Your task to perform on an android device: Go to Reddit.com Image 0: 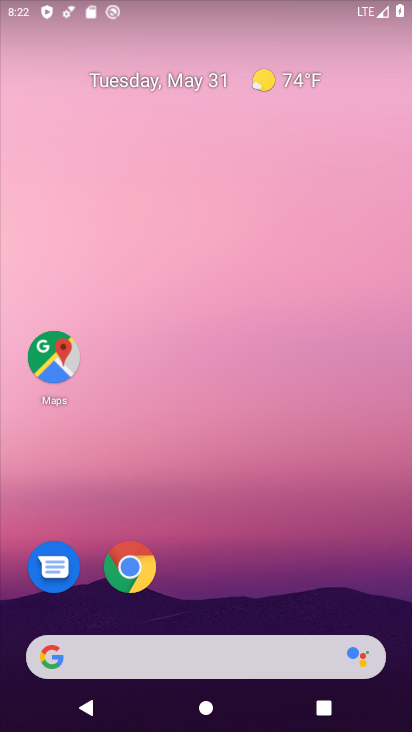
Step 0: drag from (256, 604) to (216, 184)
Your task to perform on an android device: Go to Reddit.com Image 1: 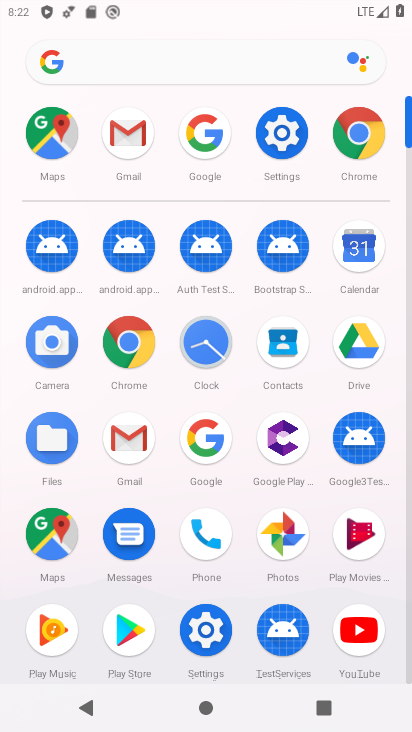
Step 1: click (354, 141)
Your task to perform on an android device: Go to Reddit.com Image 2: 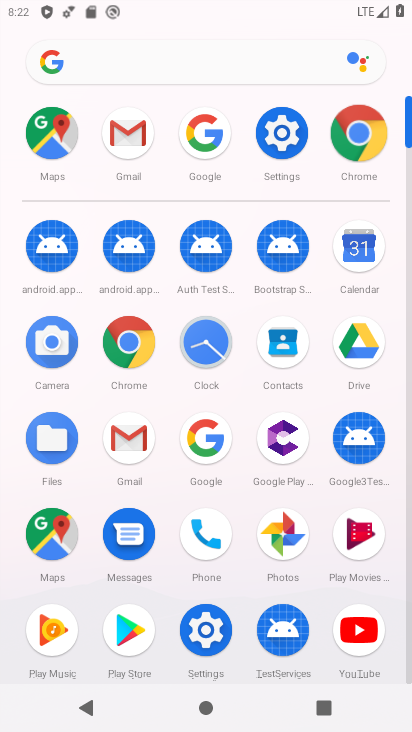
Step 2: click (354, 141)
Your task to perform on an android device: Go to Reddit.com Image 3: 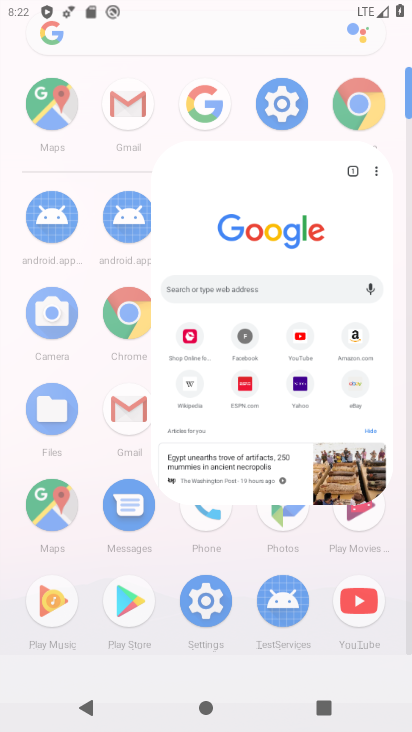
Step 3: click (354, 141)
Your task to perform on an android device: Go to Reddit.com Image 4: 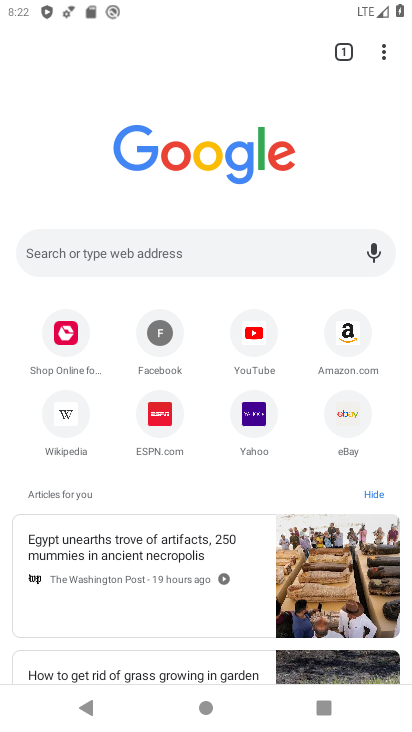
Step 4: click (79, 249)
Your task to perform on an android device: Go to Reddit.com Image 5: 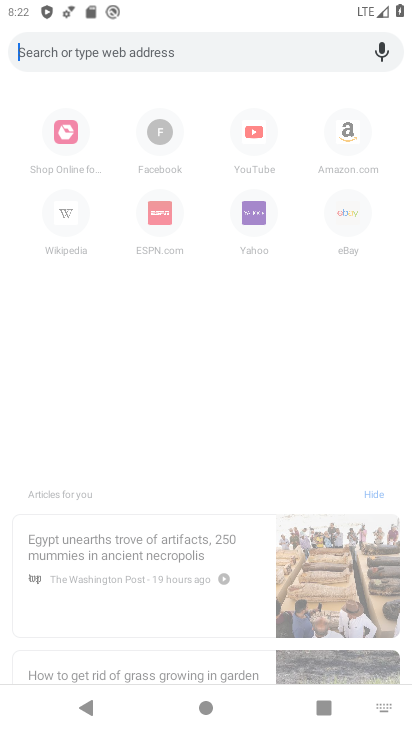
Step 5: click (51, 257)
Your task to perform on an android device: Go to Reddit.com Image 6: 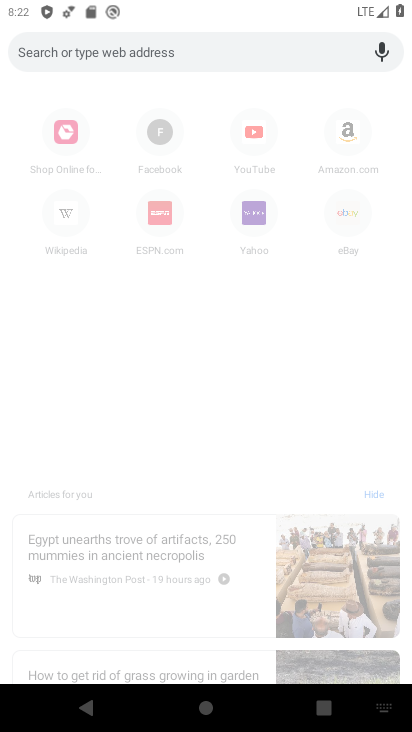
Step 6: click (52, 256)
Your task to perform on an android device: Go to Reddit.com Image 7: 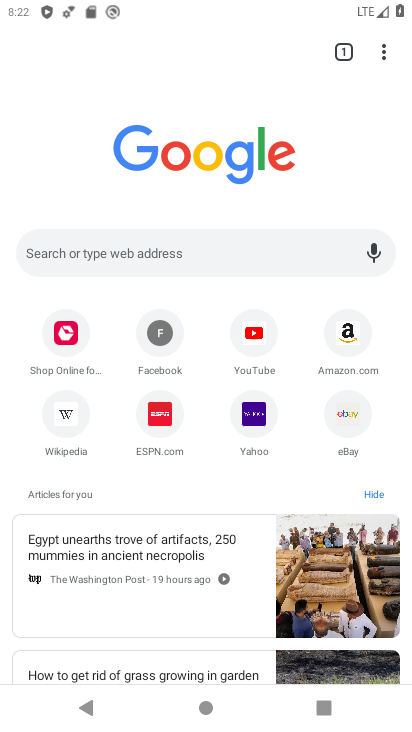
Step 7: click (47, 258)
Your task to perform on an android device: Go to Reddit.com Image 8: 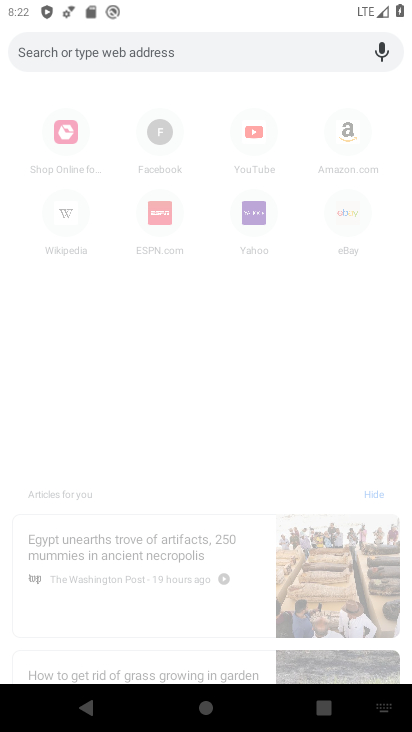
Step 8: type "Reddit.com"
Your task to perform on an android device: Go to Reddit.com Image 9: 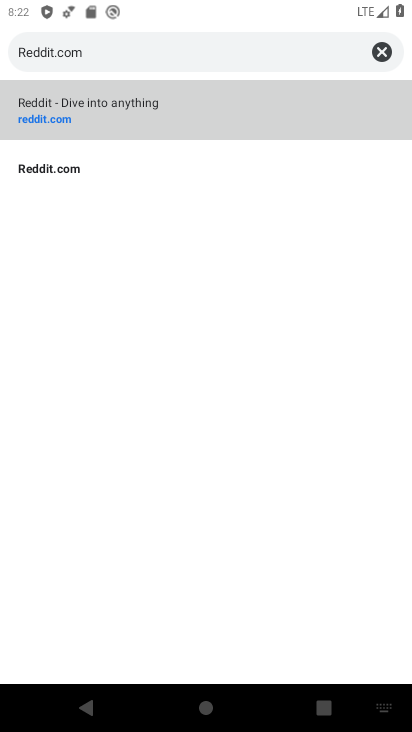
Step 9: click (60, 116)
Your task to perform on an android device: Go to Reddit.com Image 10: 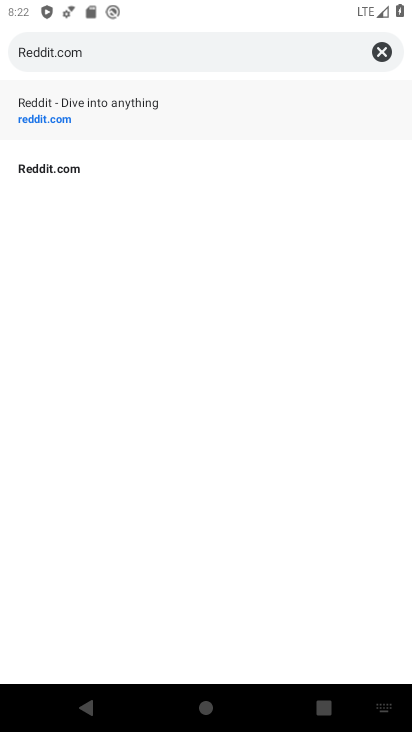
Step 10: click (60, 116)
Your task to perform on an android device: Go to Reddit.com Image 11: 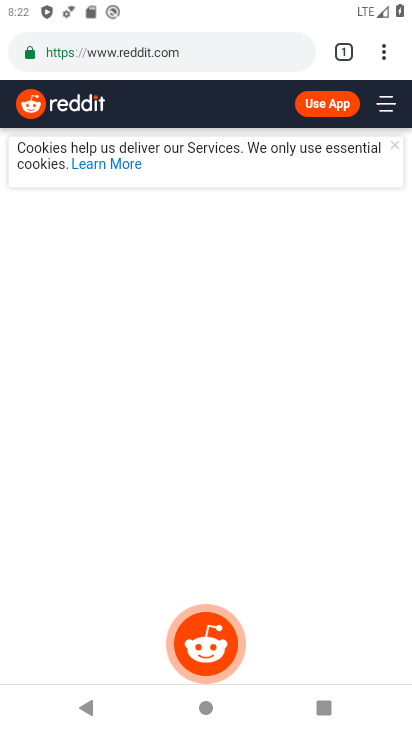
Step 11: task complete